Your task to perform on an android device: choose inbox layout in the gmail app Image 0: 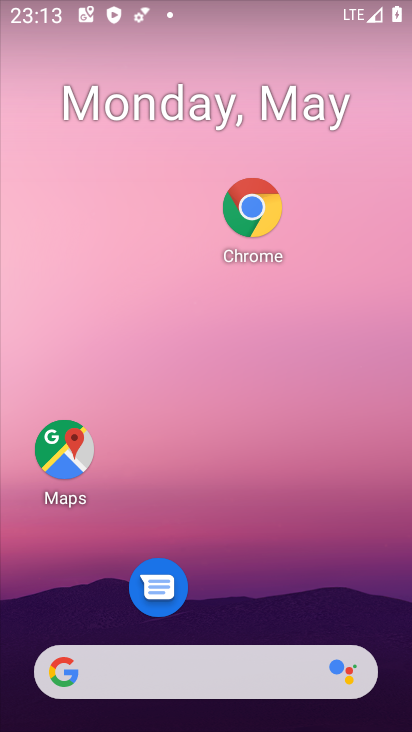
Step 0: drag from (269, 617) to (222, 209)
Your task to perform on an android device: choose inbox layout in the gmail app Image 1: 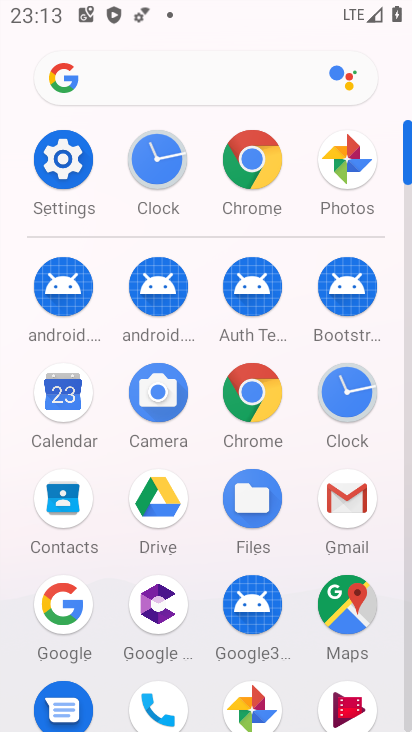
Step 1: click (330, 503)
Your task to perform on an android device: choose inbox layout in the gmail app Image 2: 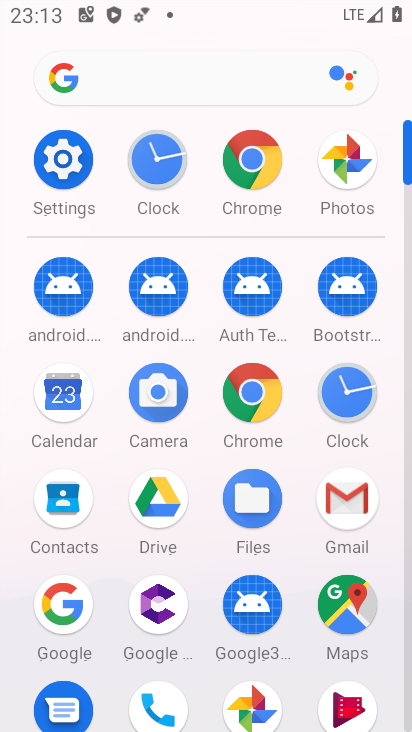
Step 2: click (332, 502)
Your task to perform on an android device: choose inbox layout in the gmail app Image 3: 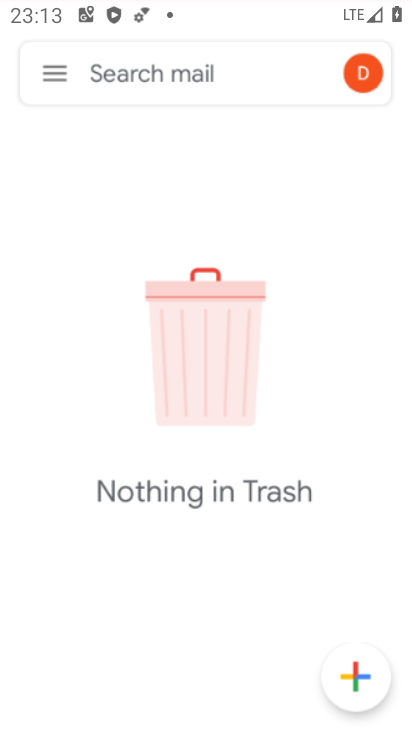
Step 3: click (334, 497)
Your task to perform on an android device: choose inbox layout in the gmail app Image 4: 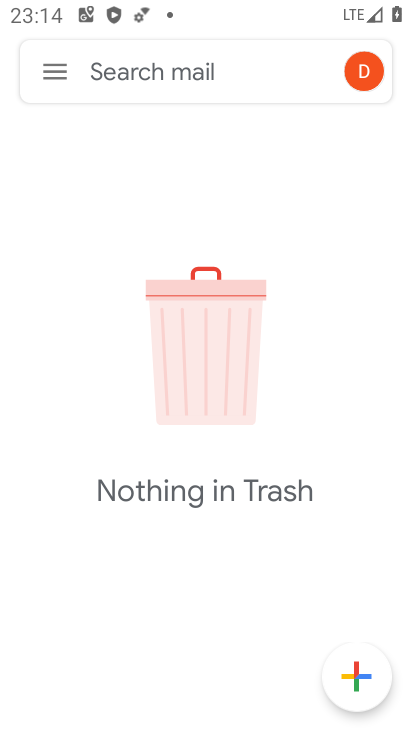
Step 4: click (51, 64)
Your task to perform on an android device: choose inbox layout in the gmail app Image 5: 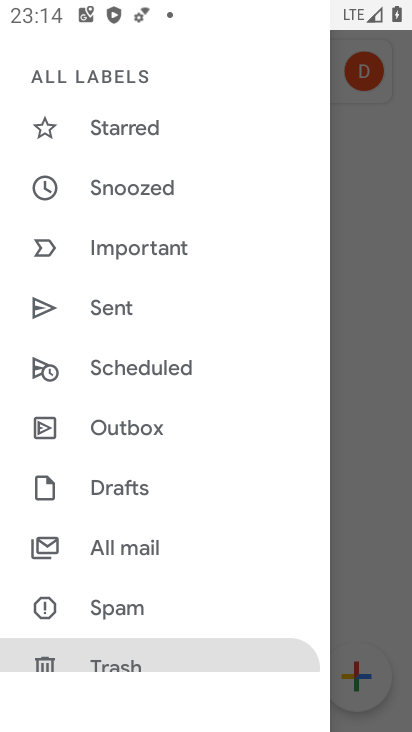
Step 5: click (129, 553)
Your task to perform on an android device: choose inbox layout in the gmail app Image 6: 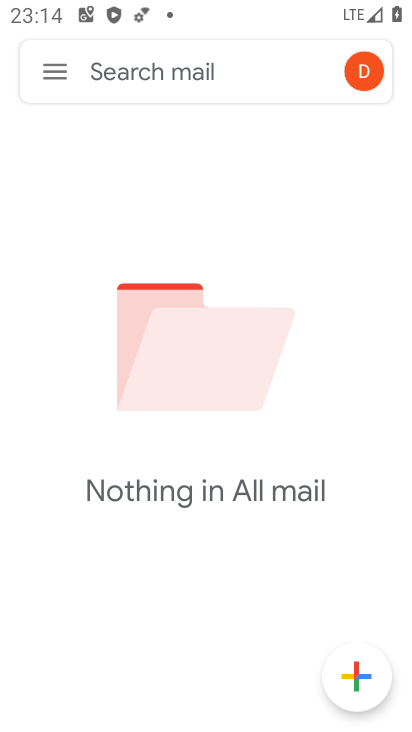
Step 6: task complete